Your task to perform on an android device: Open network settings Image 0: 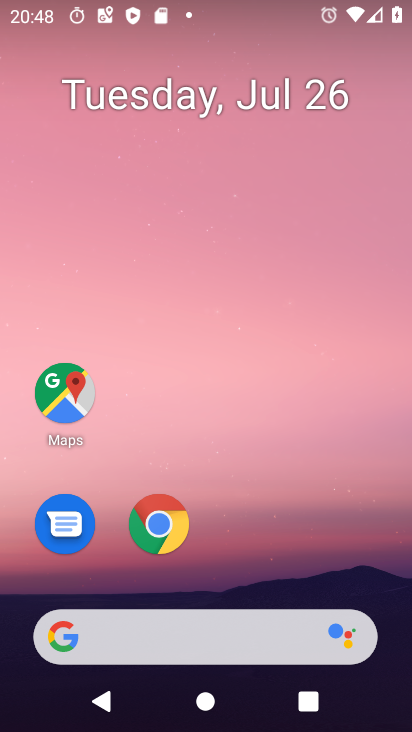
Step 0: drag from (292, 544) to (312, 16)
Your task to perform on an android device: Open network settings Image 1: 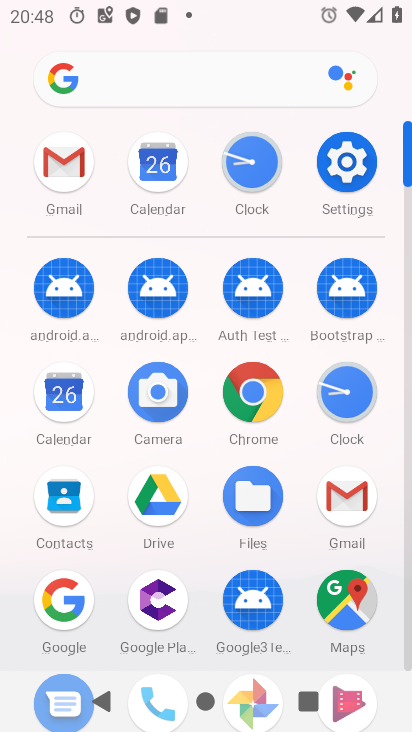
Step 1: click (341, 166)
Your task to perform on an android device: Open network settings Image 2: 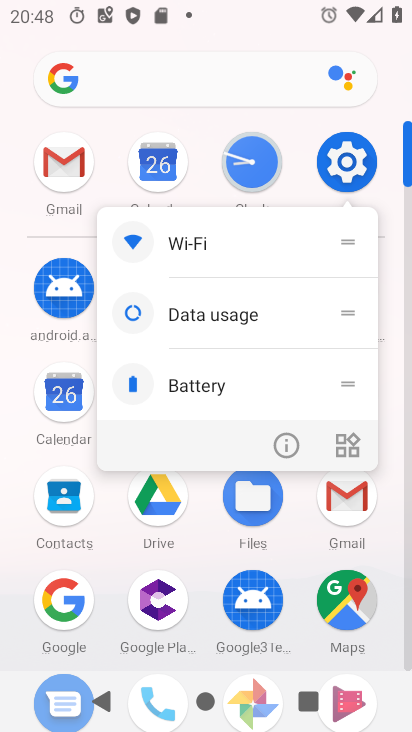
Step 2: click (349, 147)
Your task to perform on an android device: Open network settings Image 3: 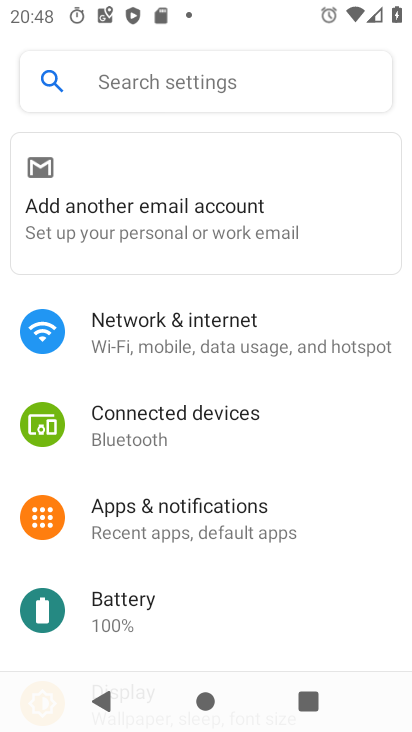
Step 3: click (192, 319)
Your task to perform on an android device: Open network settings Image 4: 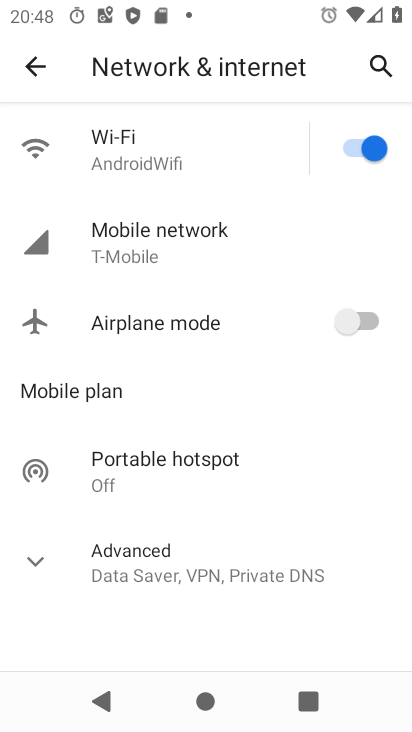
Step 4: task complete